Your task to perform on an android device: add a contact in the contacts app Image 0: 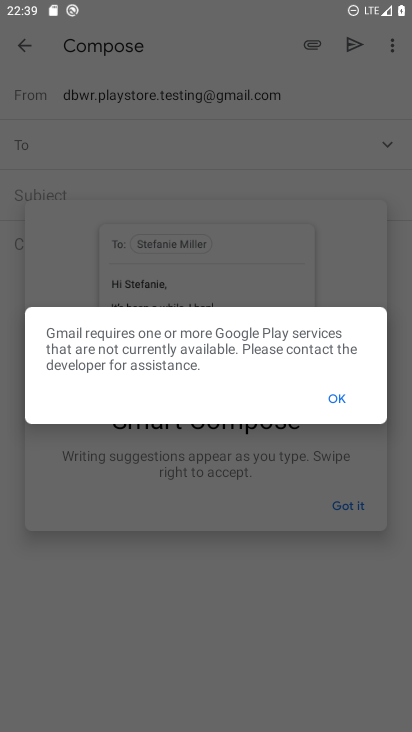
Step 0: press home button
Your task to perform on an android device: add a contact in the contacts app Image 1: 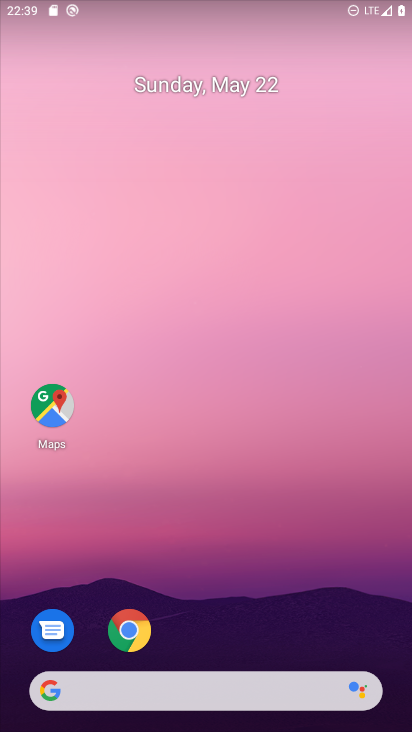
Step 1: drag from (130, 696) to (366, 217)
Your task to perform on an android device: add a contact in the contacts app Image 2: 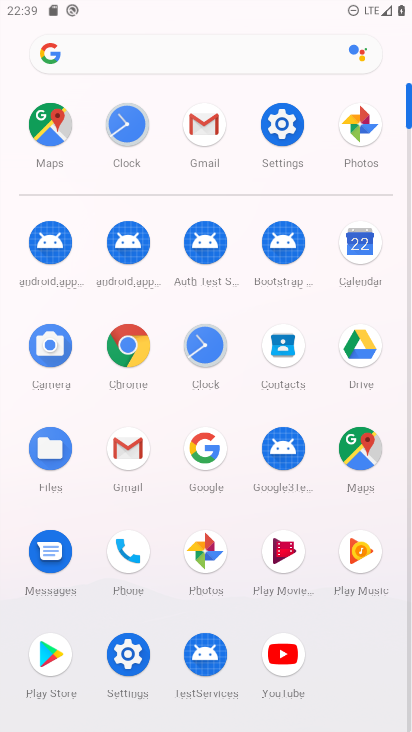
Step 2: click (290, 352)
Your task to perform on an android device: add a contact in the contacts app Image 3: 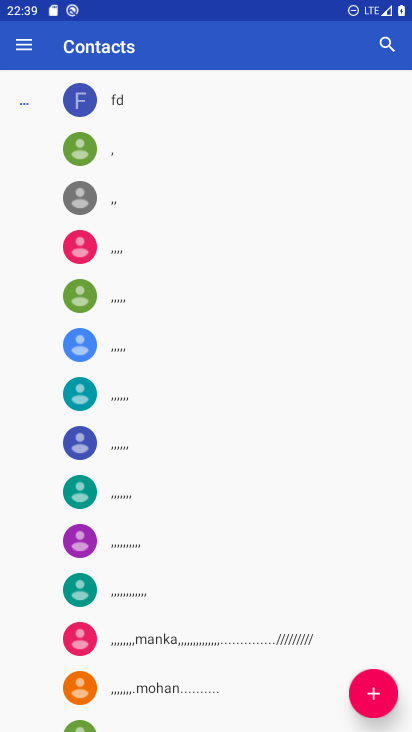
Step 3: click (360, 688)
Your task to perform on an android device: add a contact in the contacts app Image 4: 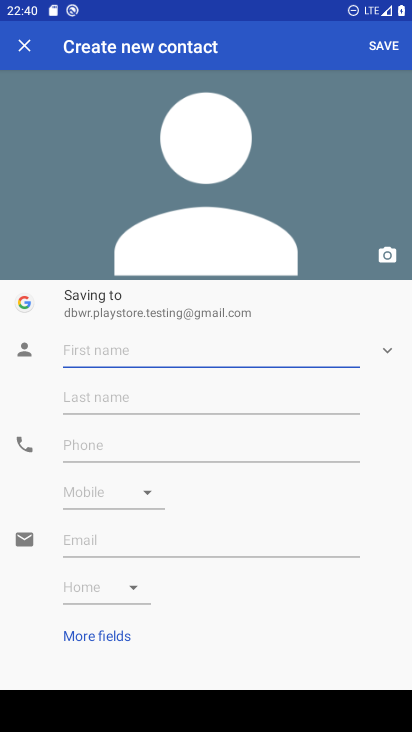
Step 4: click (137, 340)
Your task to perform on an android device: add a contact in the contacts app Image 5: 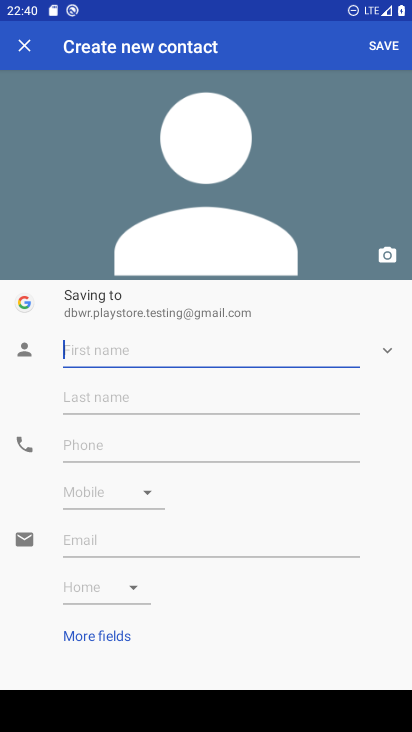
Step 5: type "bytresdf"
Your task to perform on an android device: add a contact in the contacts app Image 6: 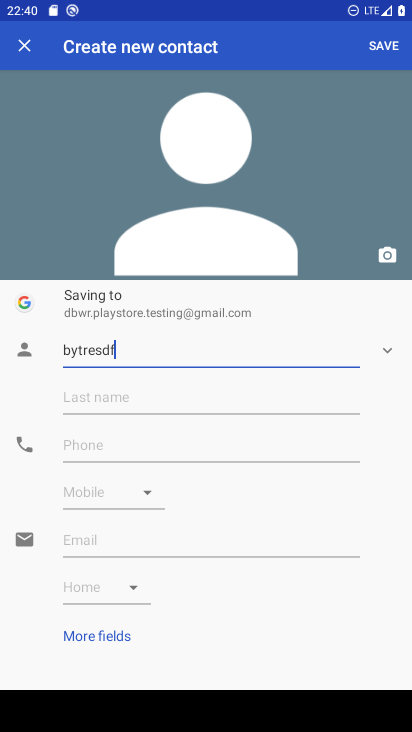
Step 6: click (97, 436)
Your task to perform on an android device: add a contact in the contacts app Image 7: 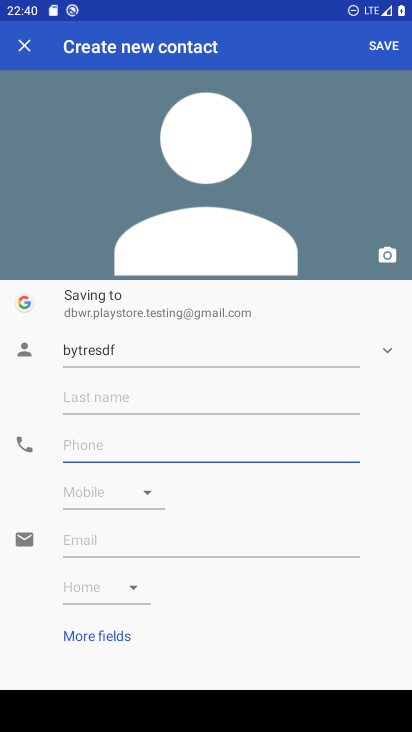
Step 7: type "7658888"
Your task to perform on an android device: add a contact in the contacts app Image 8: 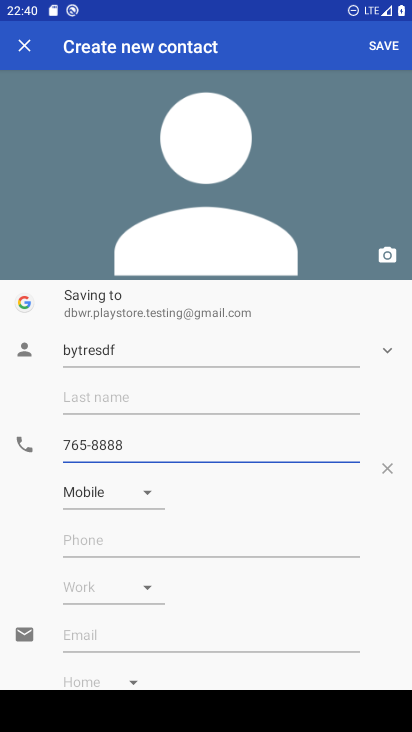
Step 8: click (392, 48)
Your task to perform on an android device: add a contact in the contacts app Image 9: 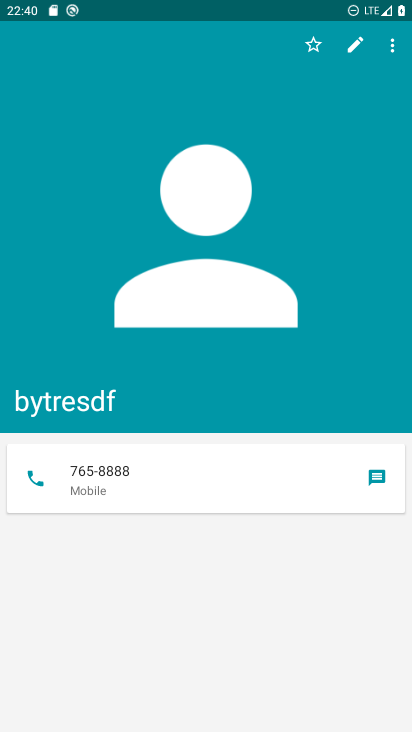
Step 9: task complete